Your task to perform on an android device: Go to Google Image 0: 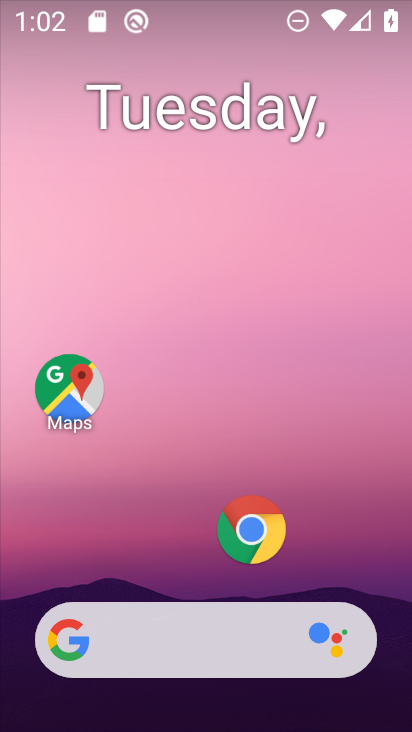
Step 0: click (82, 634)
Your task to perform on an android device: Go to Google Image 1: 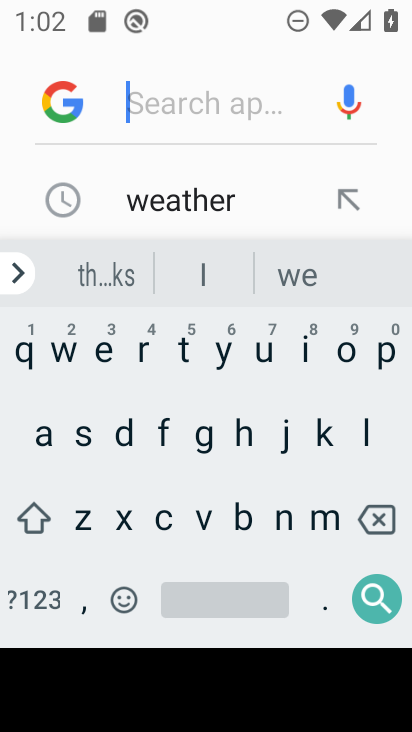
Step 1: click (60, 101)
Your task to perform on an android device: Go to Google Image 2: 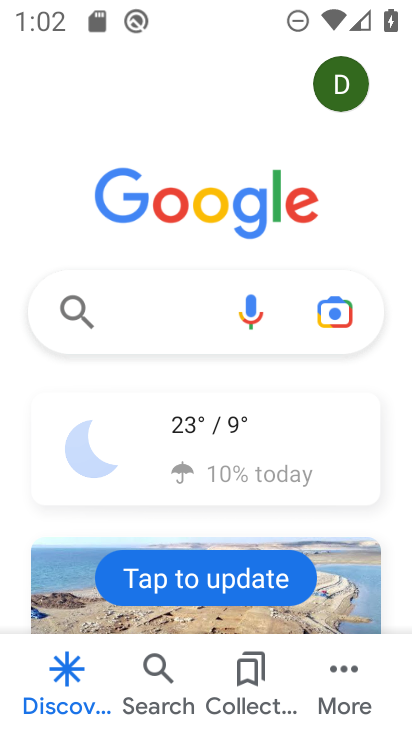
Step 2: task complete